Your task to perform on an android device: turn on priority inbox in the gmail app Image 0: 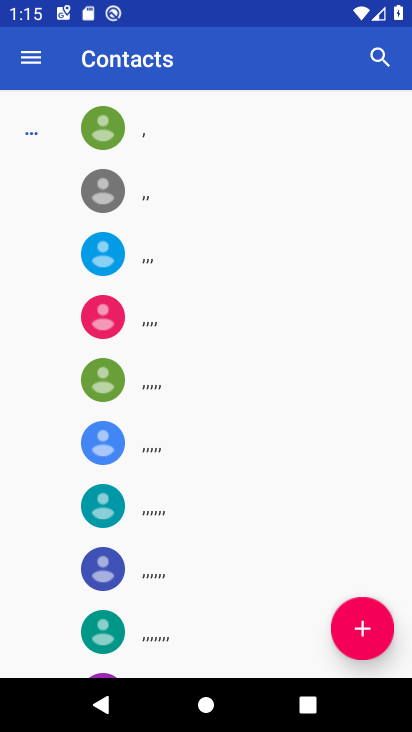
Step 0: press home button
Your task to perform on an android device: turn on priority inbox in the gmail app Image 1: 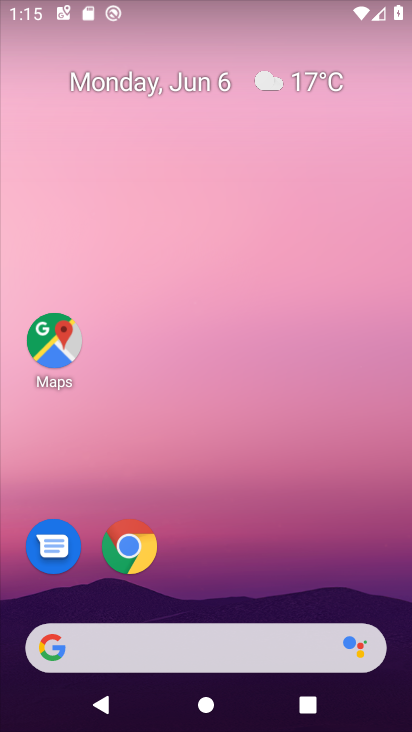
Step 1: drag from (213, 652) to (391, 408)
Your task to perform on an android device: turn on priority inbox in the gmail app Image 2: 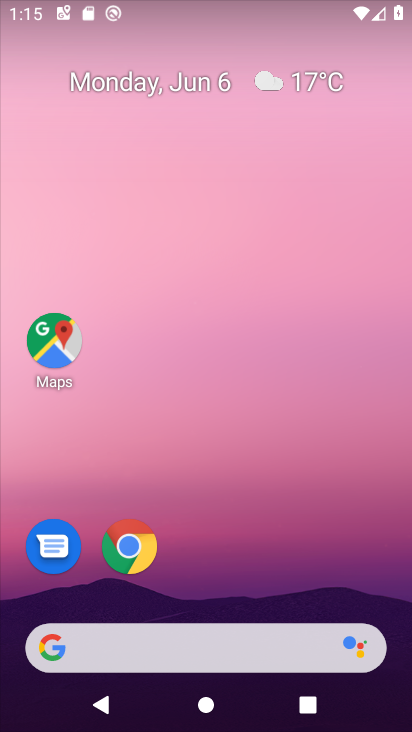
Step 2: drag from (209, 634) to (271, 1)
Your task to perform on an android device: turn on priority inbox in the gmail app Image 3: 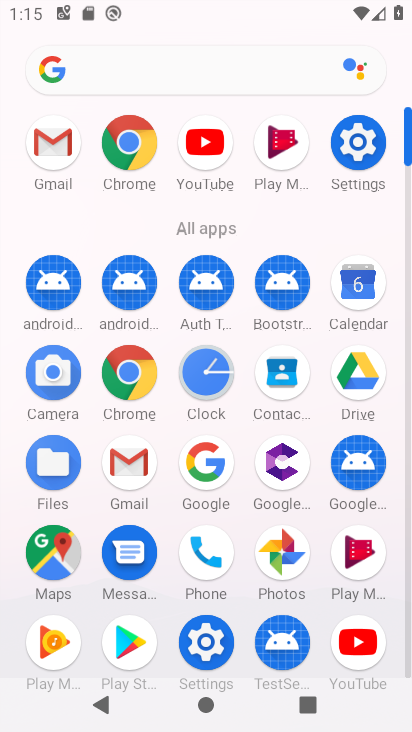
Step 3: click (116, 466)
Your task to perform on an android device: turn on priority inbox in the gmail app Image 4: 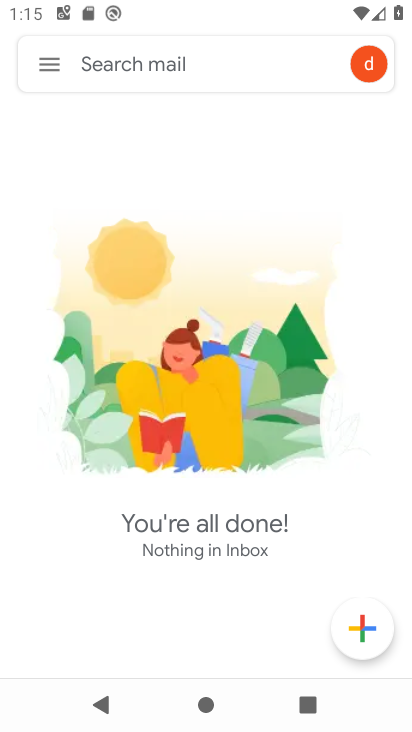
Step 4: click (52, 61)
Your task to perform on an android device: turn on priority inbox in the gmail app Image 5: 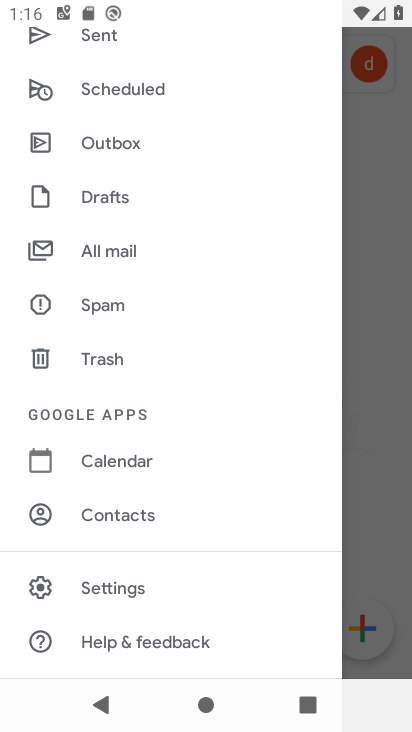
Step 5: click (120, 595)
Your task to perform on an android device: turn on priority inbox in the gmail app Image 6: 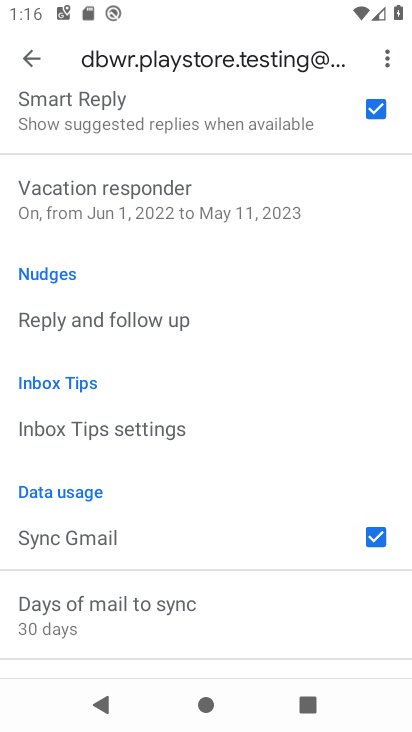
Step 6: drag from (184, 183) to (179, 673)
Your task to perform on an android device: turn on priority inbox in the gmail app Image 7: 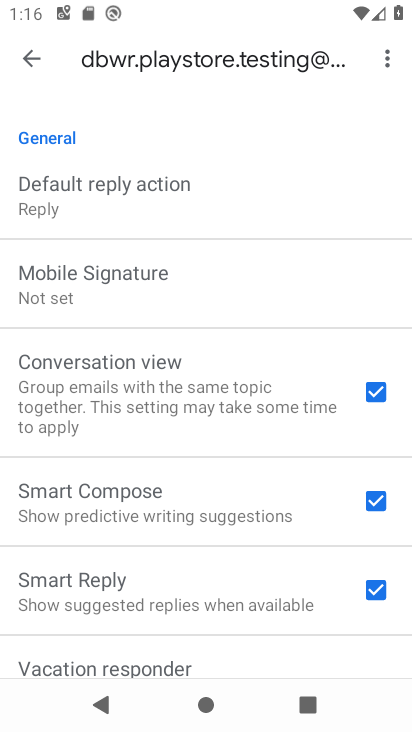
Step 7: drag from (119, 165) to (84, 719)
Your task to perform on an android device: turn on priority inbox in the gmail app Image 8: 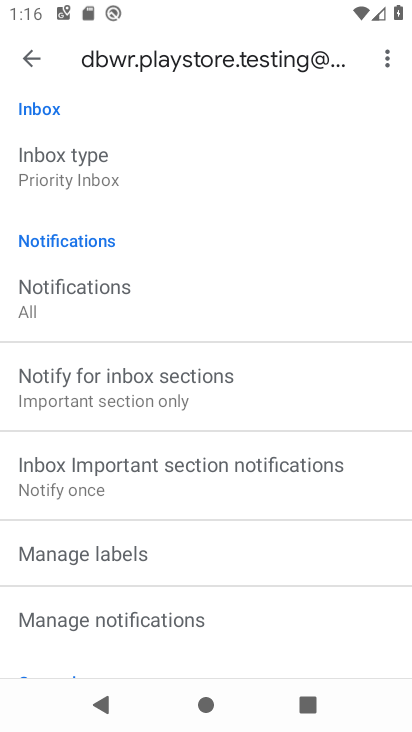
Step 8: click (93, 178)
Your task to perform on an android device: turn on priority inbox in the gmail app Image 9: 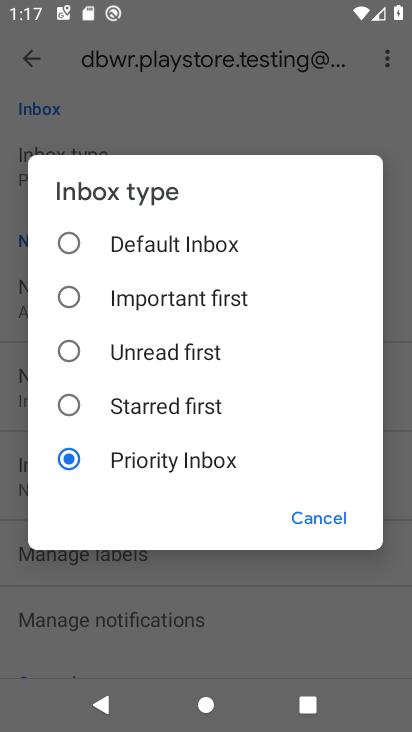
Step 9: click (216, 461)
Your task to perform on an android device: turn on priority inbox in the gmail app Image 10: 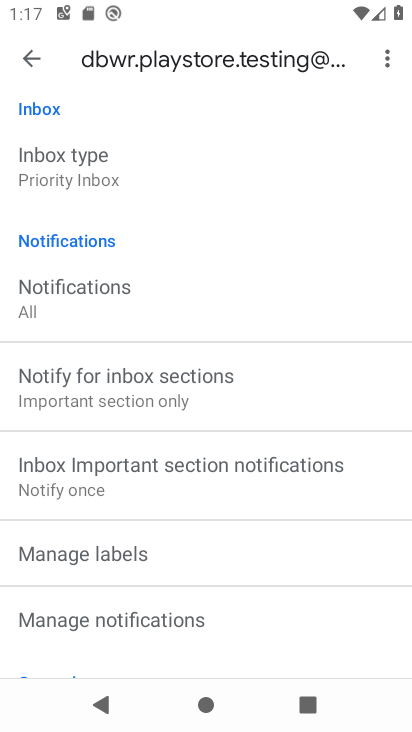
Step 10: task complete